Your task to perform on an android device: turn on sleep mode Image 0: 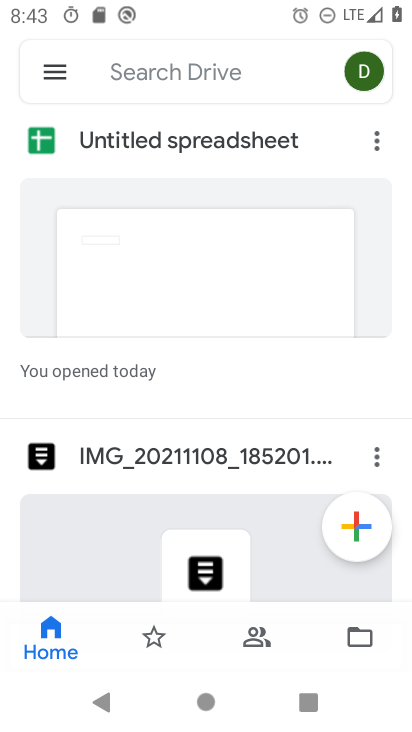
Step 0: press home button
Your task to perform on an android device: turn on sleep mode Image 1: 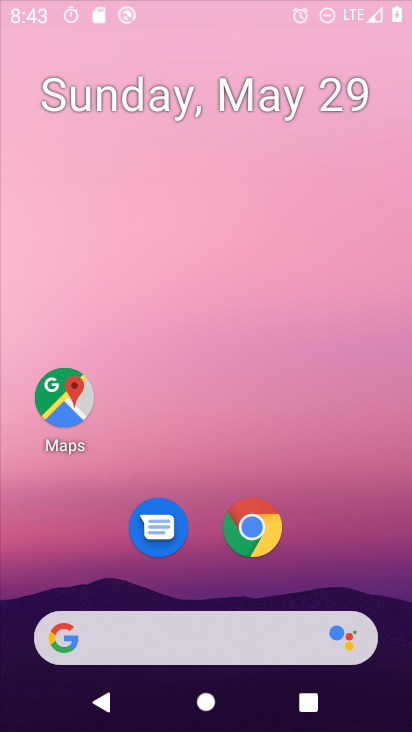
Step 1: drag from (395, 631) to (311, 93)
Your task to perform on an android device: turn on sleep mode Image 2: 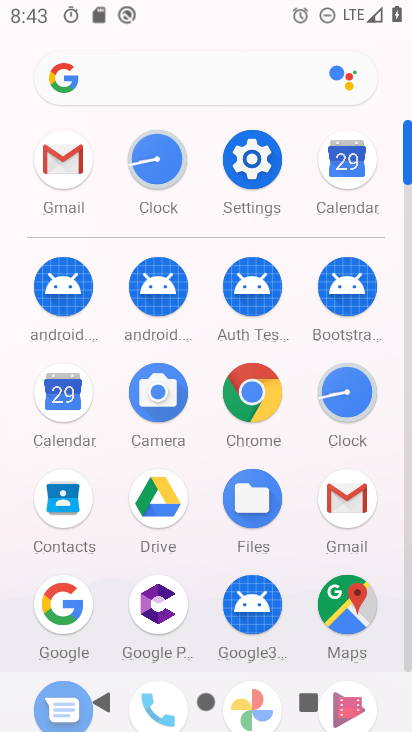
Step 2: click (262, 166)
Your task to perform on an android device: turn on sleep mode Image 3: 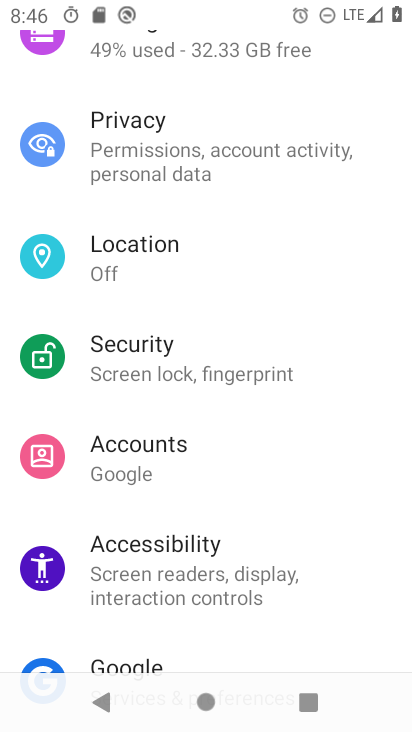
Step 3: task complete